Your task to perform on an android device: turn on notifications settings in the gmail app Image 0: 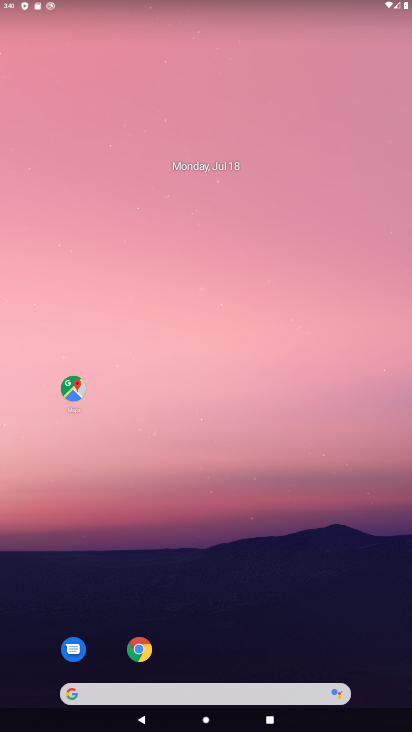
Step 0: drag from (339, 643) to (211, 156)
Your task to perform on an android device: turn on notifications settings in the gmail app Image 1: 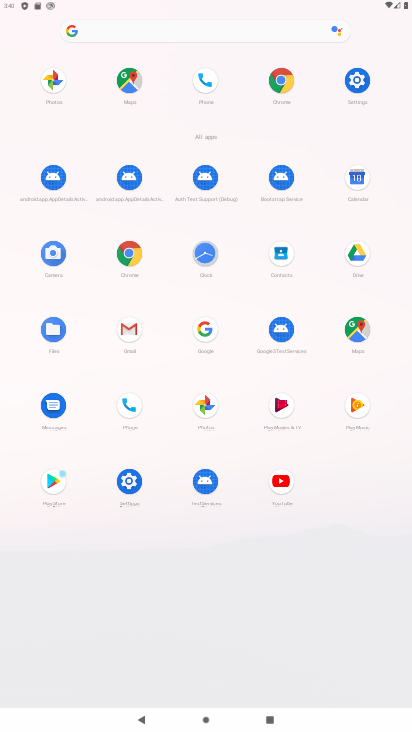
Step 1: click (131, 329)
Your task to perform on an android device: turn on notifications settings in the gmail app Image 2: 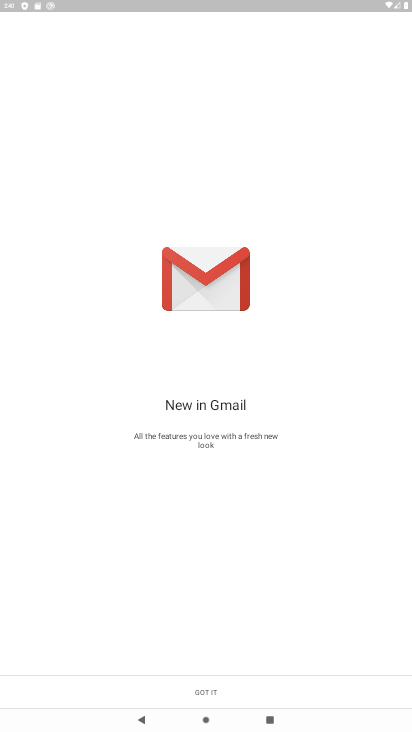
Step 2: click (205, 681)
Your task to perform on an android device: turn on notifications settings in the gmail app Image 3: 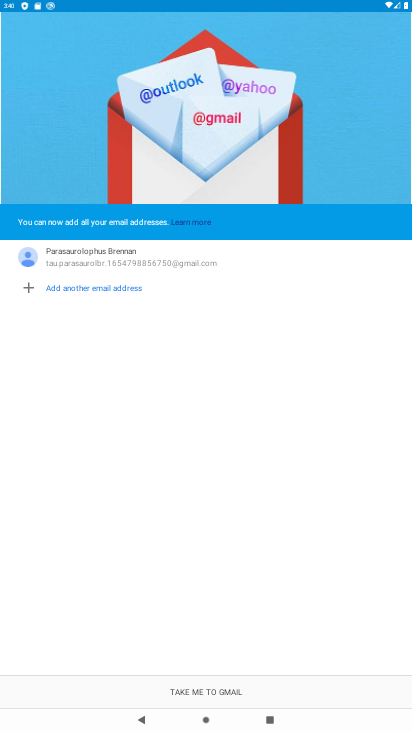
Step 3: click (205, 681)
Your task to perform on an android device: turn on notifications settings in the gmail app Image 4: 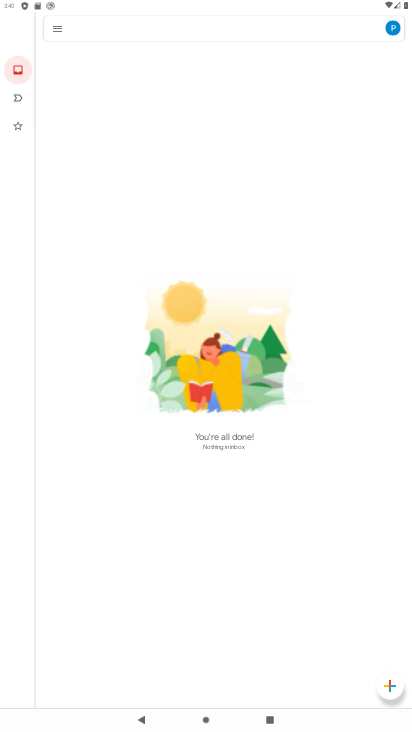
Step 4: click (54, 29)
Your task to perform on an android device: turn on notifications settings in the gmail app Image 5: 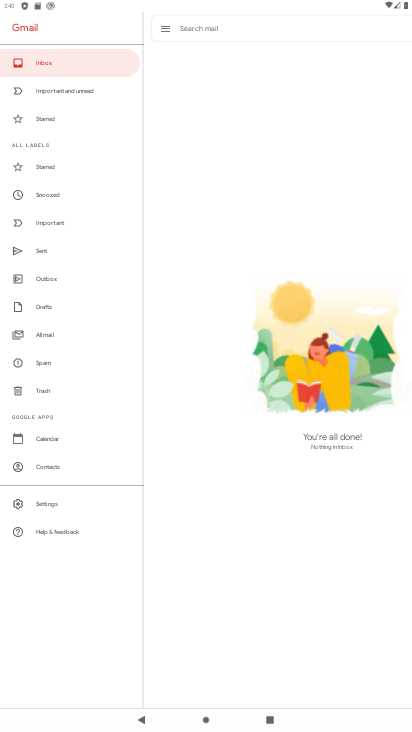
Step 5: click (57, 502)
Your task to perform on an android device: turn on notifications settings in the gmail app Image 6: 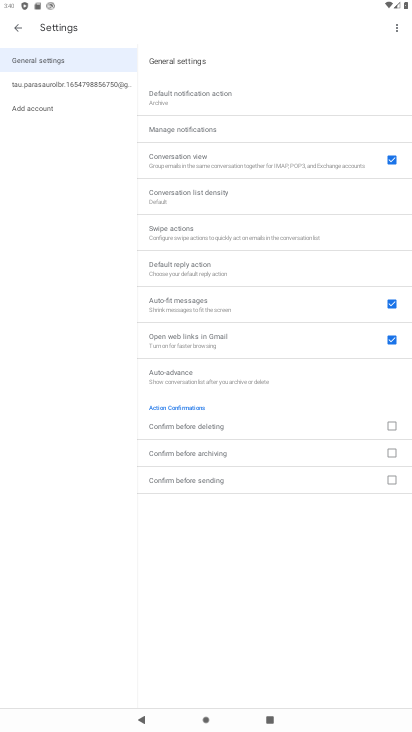
Step 6: click (93, 86)
Your task to perform on an android device: turn on notifications settings in the gmail app Image 7: 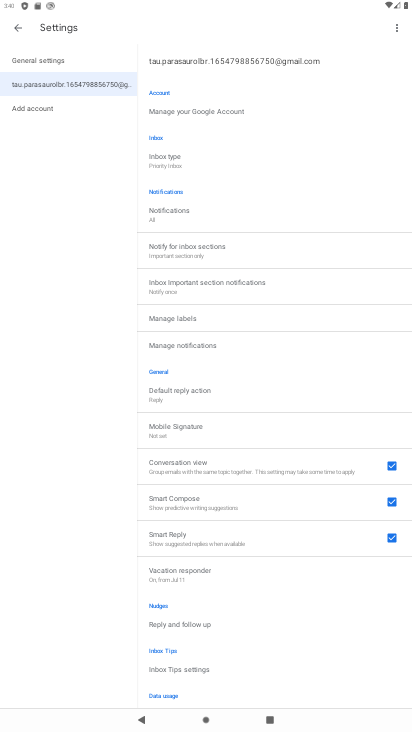
Step 7: click (225, 338)
Your task to perform on an android device: turn on notifications settings in the gmail app Image 8: 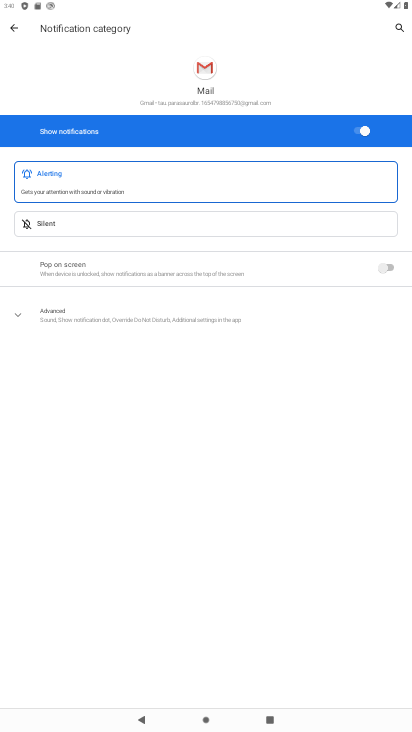
Step 8: click (187, 219)
Your task to perform on an android device: turn on notifications settings in the gmail app Image 9: 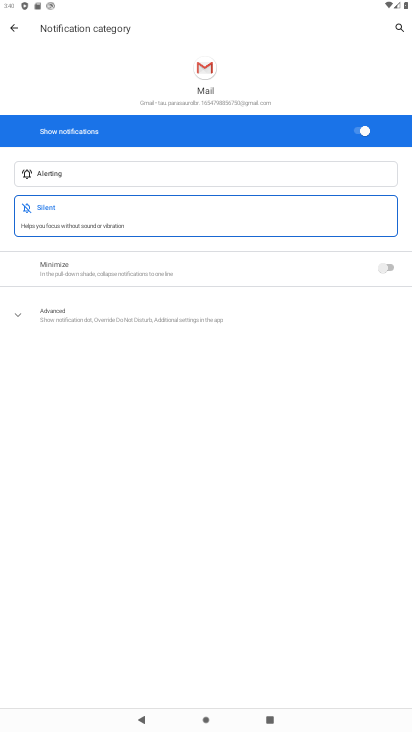
Step 9: click (382, 259)
Your task to perform on an android device: turn on notifications settings in the gmail app Image 10: 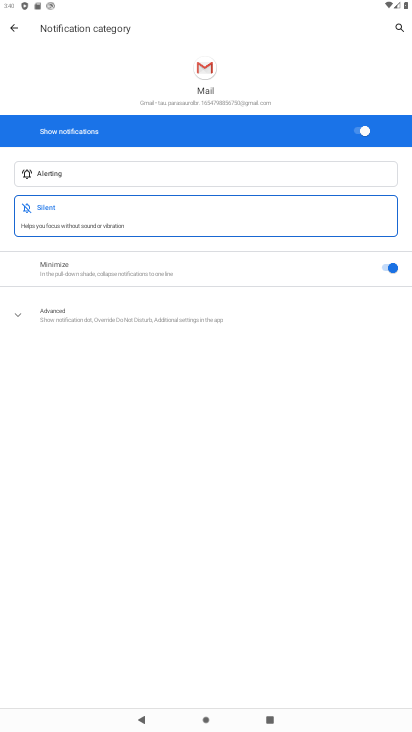
Step 10: task complete